Your task to perform on an android device: turn off notifications in google photos Image 0: 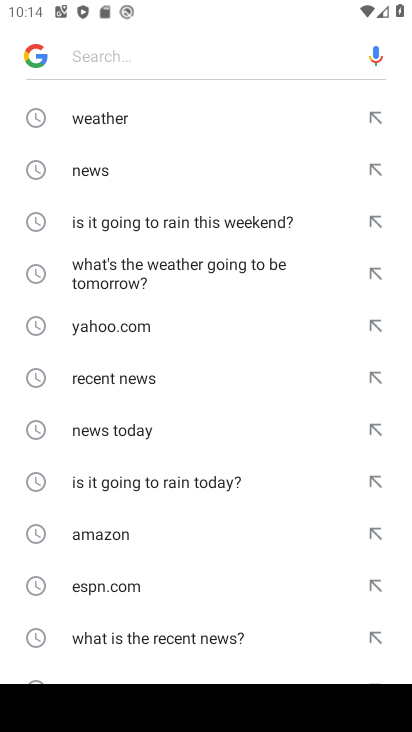
Step 0: press home button
Your task to perform on an android device: turn off notifications in google photos Image 1: 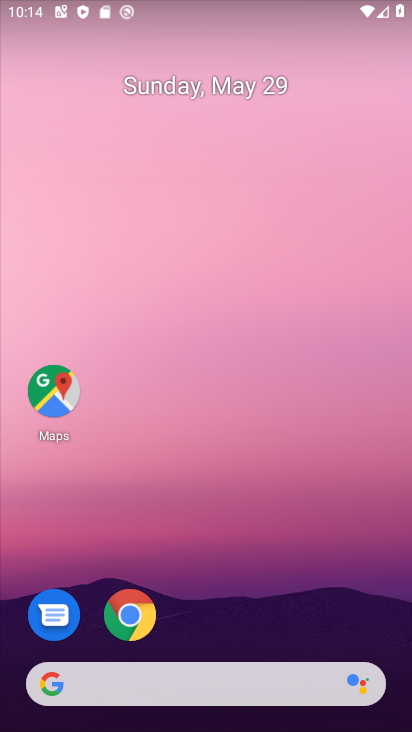
Step 1: drag from (225, 670) to (382, 56)
Your task to perform on an android device: turn off notifications in google photos Image 2: 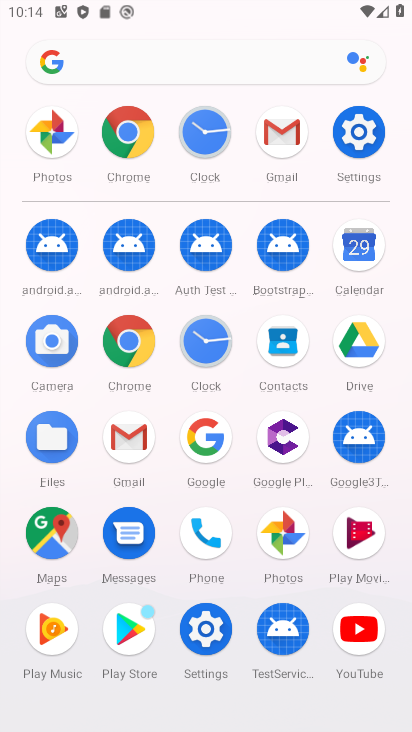
Step 2: click (298, 533)
Your task to perform on an android device: turn off notifications in google photos Image 3: 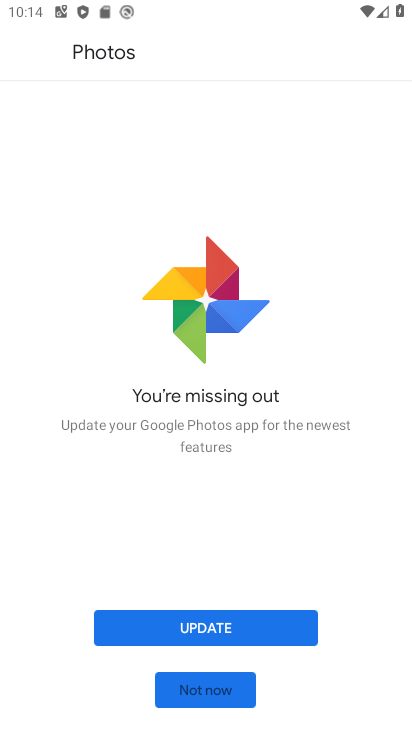
Step 3: click (224, 697)
Your task to perform on an android device: turn off notifications in google photos Image 4: 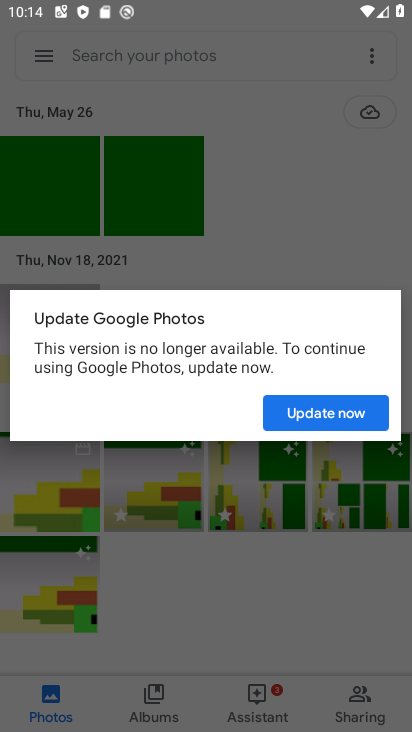
Step 4: click (316, 421)
Your task to perform on an android device: turn off notifications in google photos Image 5: 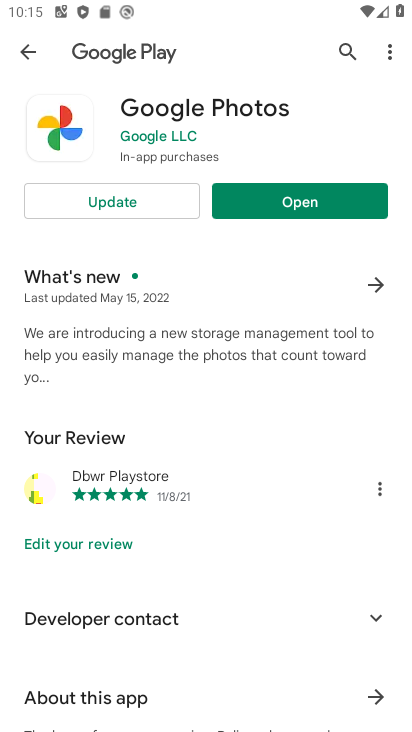
Step 5: click (281, 202)
Your task to perform on an android device: turn off notifications in google photos Image 6: 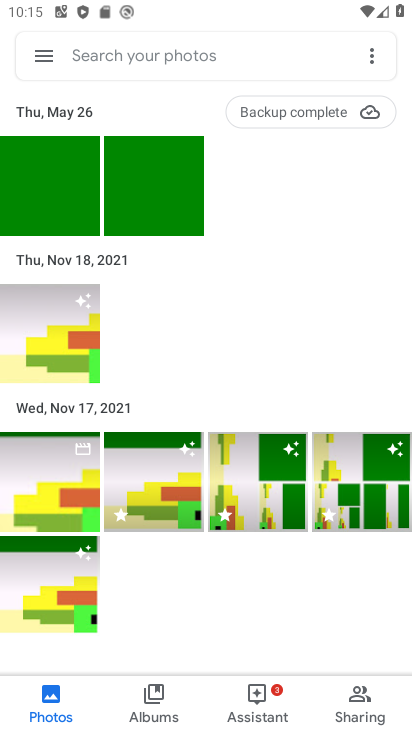
Step 6: click (42, 51)
Your task to perform on an android device: turn off notifications in google photos Image 7: 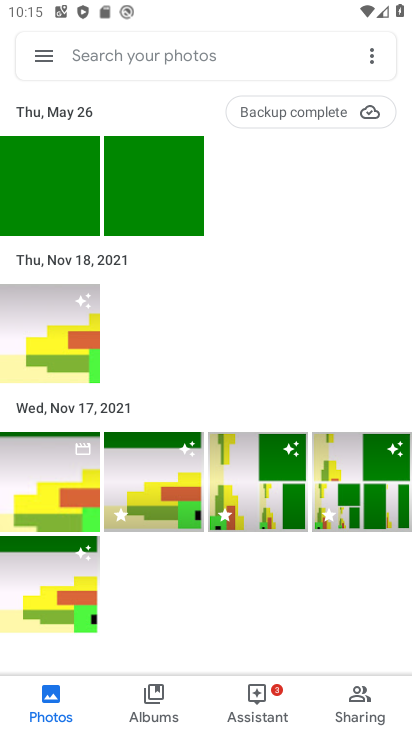
Step 7: click (31, 61)
Your task to perform on an android device: turn off notifications in google photos Image 8: 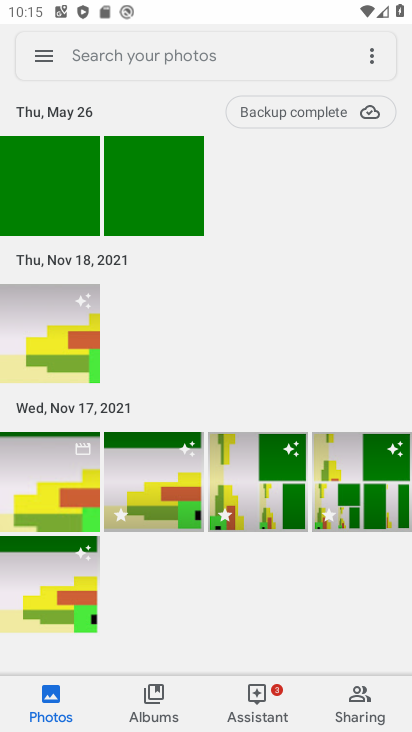
Step 8: drag from (53, 64) to (52, 115)
Your task to perform on an android device: turn off notifications in google photos Image 9: 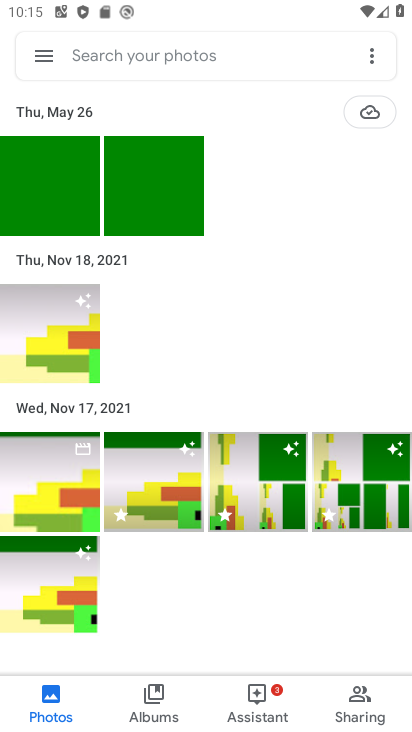
Step 9: click (38, 63)
Your task to perform on an android device: turn off notifications in google photos Image 10: 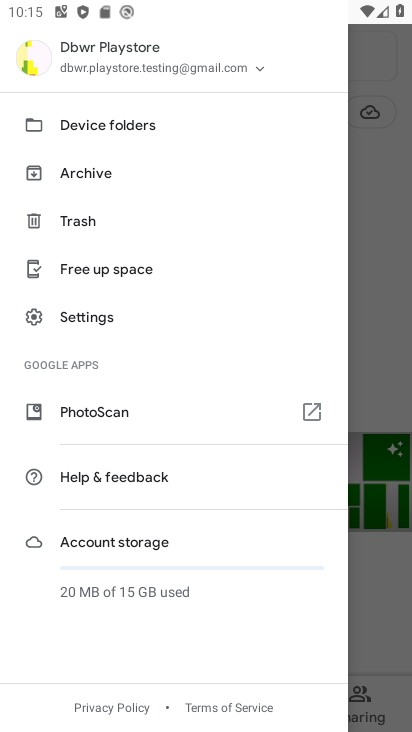
Step 10: click (76, 319)
Your task to perform on an android device: turn off notifications in google photos Image 11: 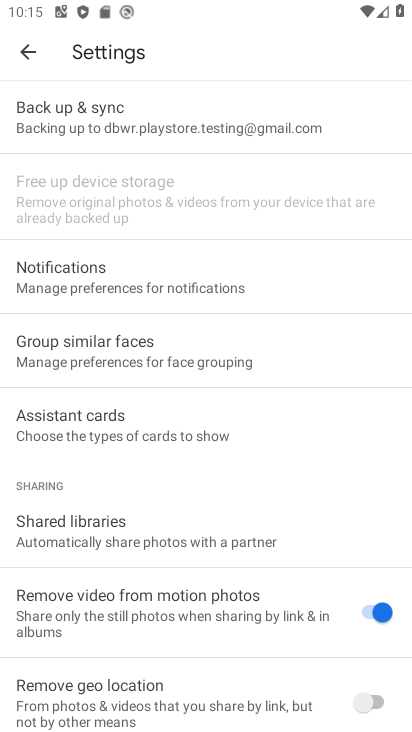
Step 11: click (112, 291)
Your task to perform on an android device: turn off notifications in google photos Image 12: 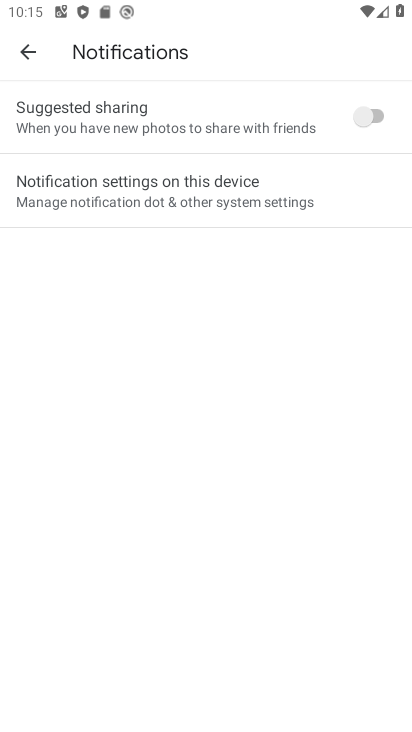
Step 12: task complete